Your task to perform on an android device: open app "Reddit" (install if not already installed), go to login, and select forgot password Image 0: 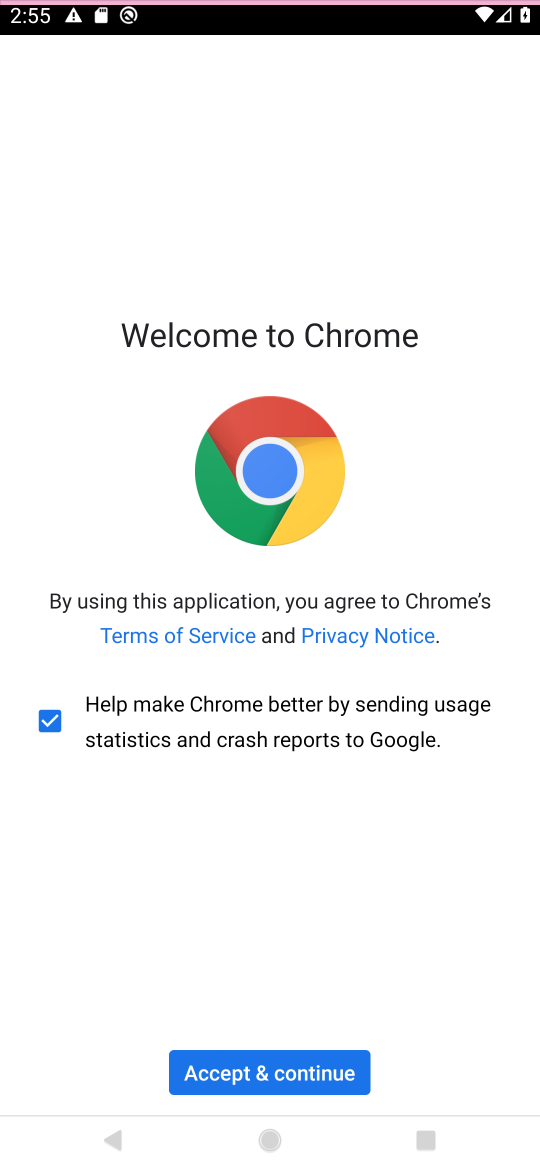
Step 0: press home button
Your task to perform on an android device: open app "Reddit" (install if not already installed), go to login, and select forgot password Image 1: 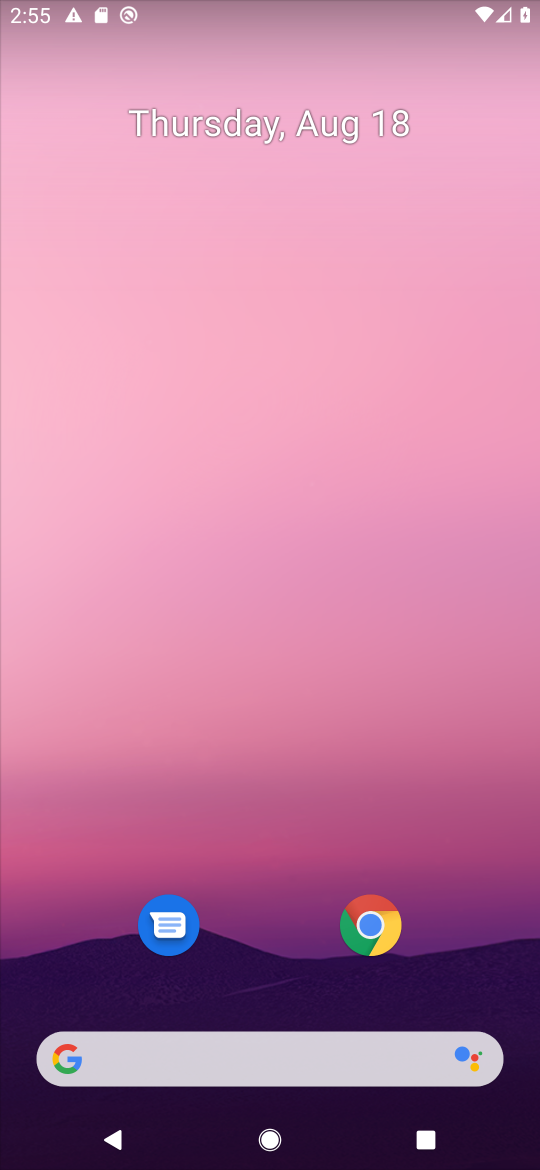
Step 1: press home button
Your task to perform on an android device: open app "Reddit" (install if not already installed), go to login, and select forgot password Image 2: 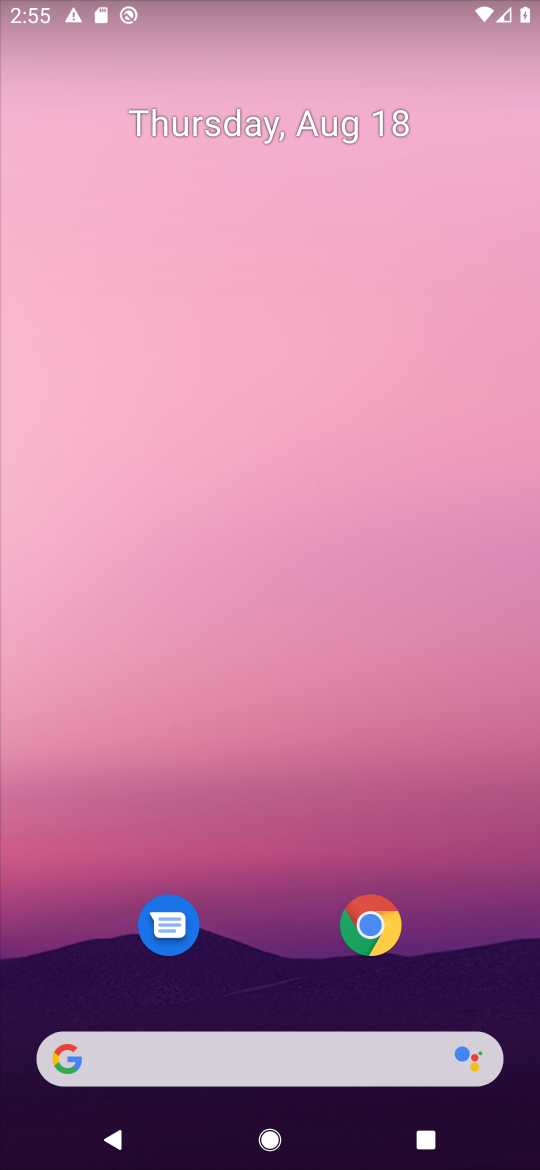
Step 2: click (242, 994)
Your task to perform on an android device: open app "Reddit" (install if not already installed), go to login, and select forgot password Image 3: 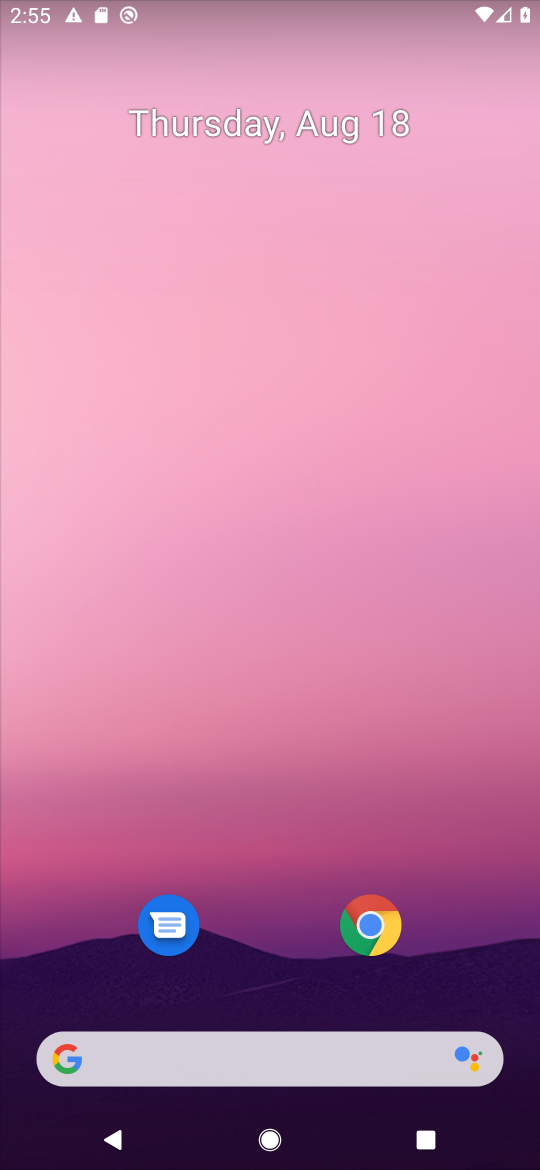
Step 3: drag from (240, 980) to (240, 337)
Your task to perform on an android device: open app "Reddit" (install if not already installed), go to login, and select forgot password Image 4: 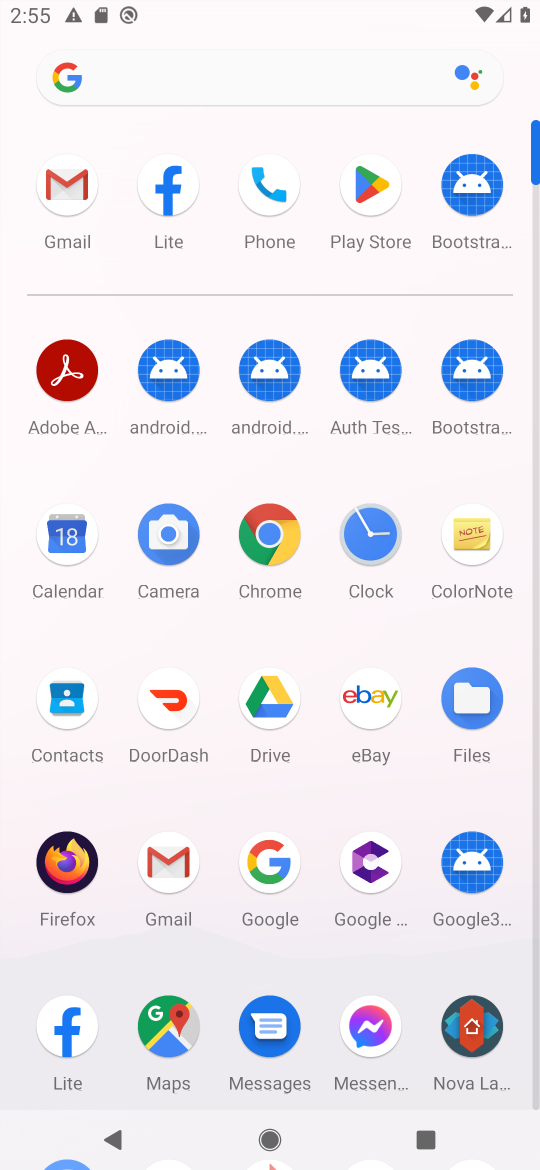
Step 4: click (362, 191)
Your task to perform on an android device: open app "Reddit" (install if not already installed), go to login, and select forgot password Image 5: 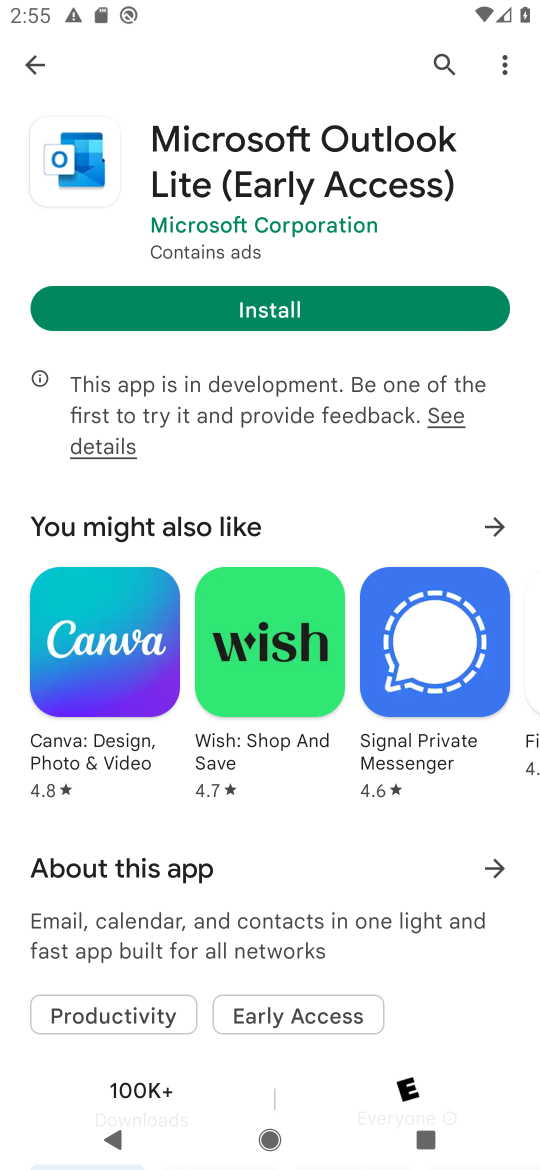
Step 5: click (25, 67)
Your task to perform on an android device: open app "Reddit" (install if not already installed), go to login, and select forgot password Image 6: 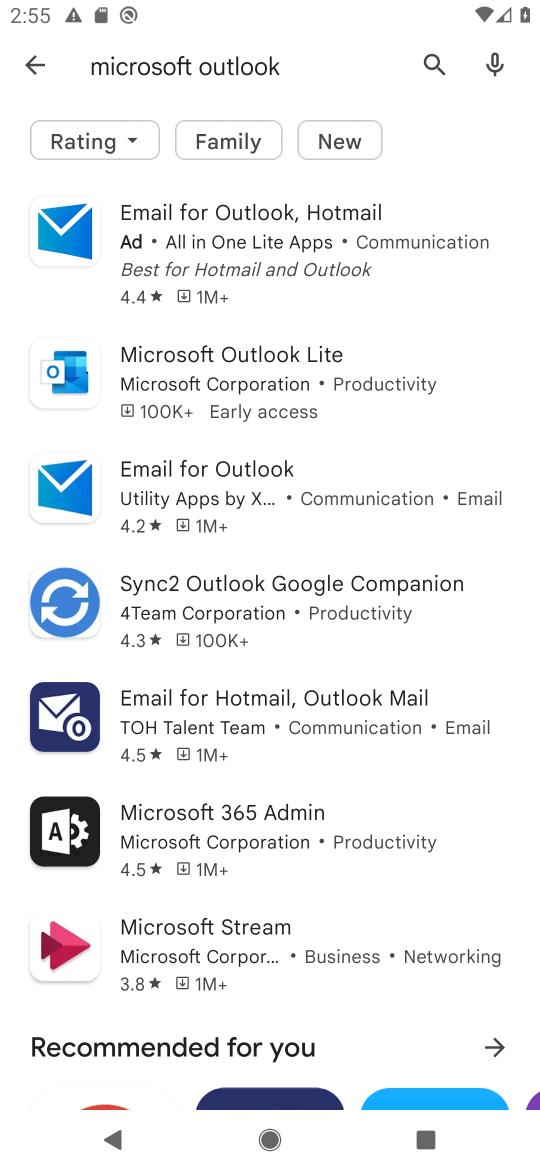
Step 6: click (37, 66)
Your task to perform on an android device: open app "Reddit" (install if not already installed), go to login, and select forgot password Image 7: 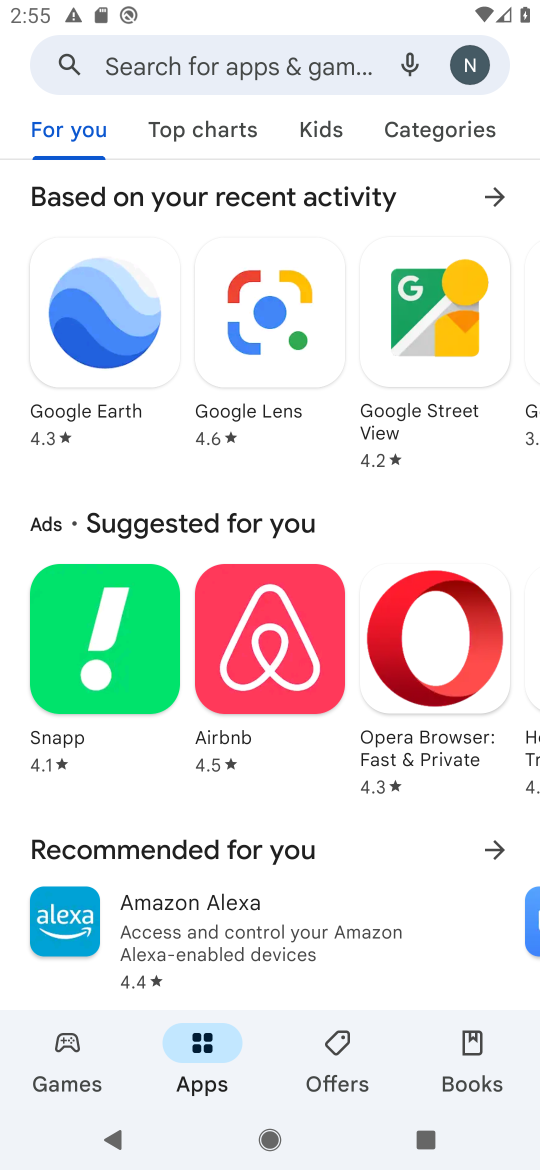
Step 7: click (249, 60)
Your task to perform on an android device: open app "Reddit" (install if not already installed), go to login, and select forgot password Image 8: 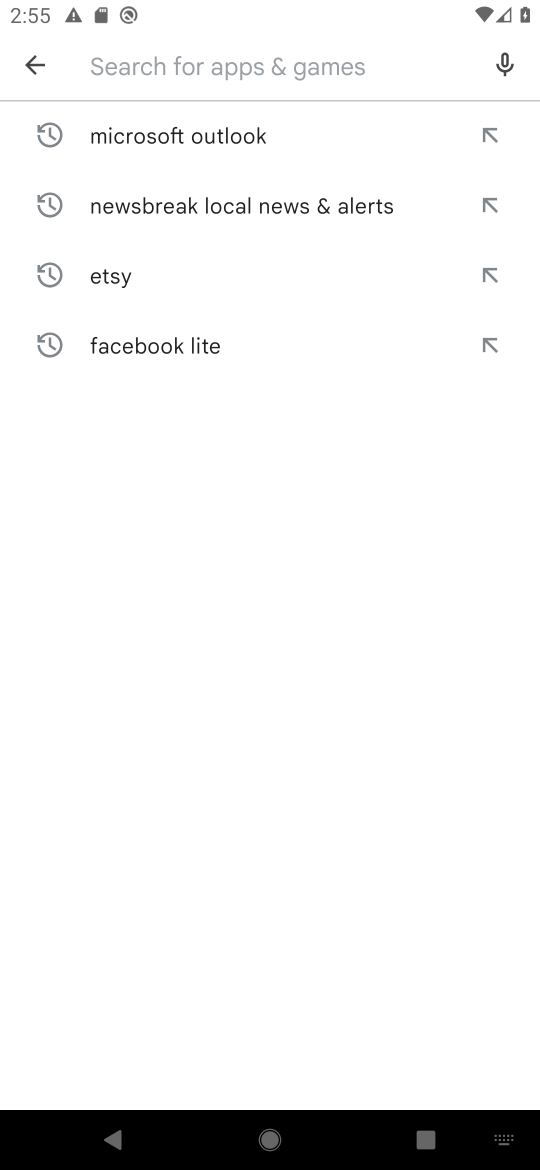
Step 8: type "Reddit"
Your task to perform on an android device: open app "Reddit" (install if not already installed), go to login, and select forgot password Image 9: 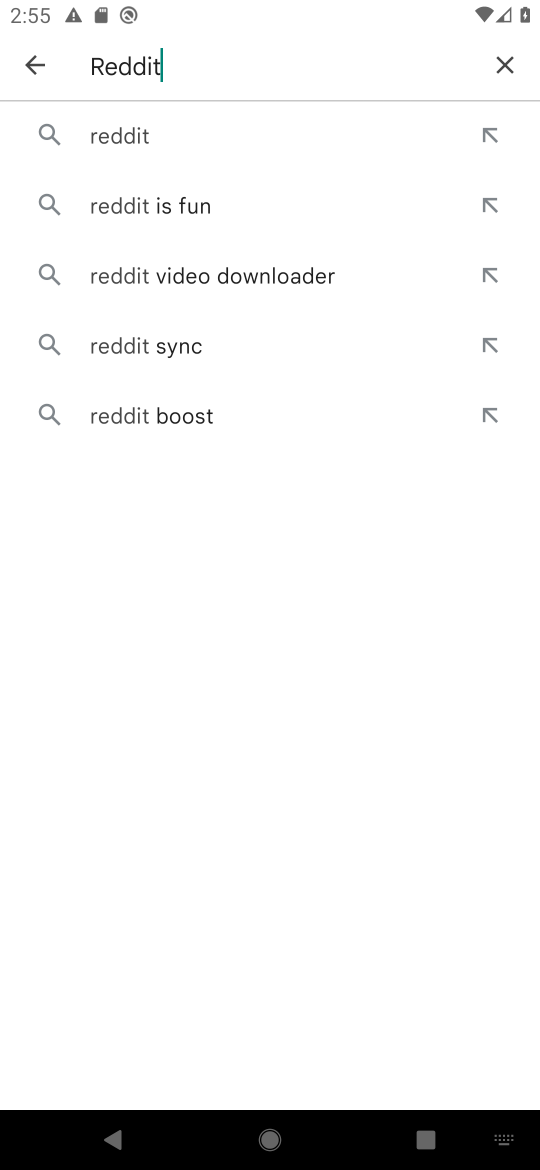
Step 9: click (110, 135)
Your task to perform on an android device: open app "Reddit" (install if not already installed), go to login, and select forgot password Image 10: 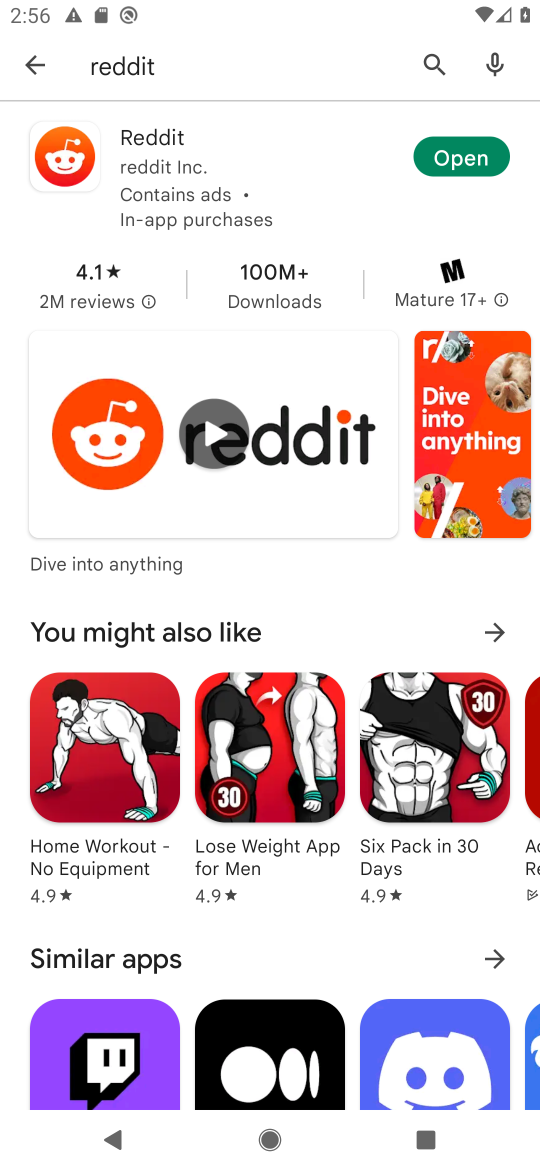
Step 10: click (439, 163)
Your task to perform on an android device: open app "Reddit" (install if not already installed), go to login, and select forgot password Image 11: 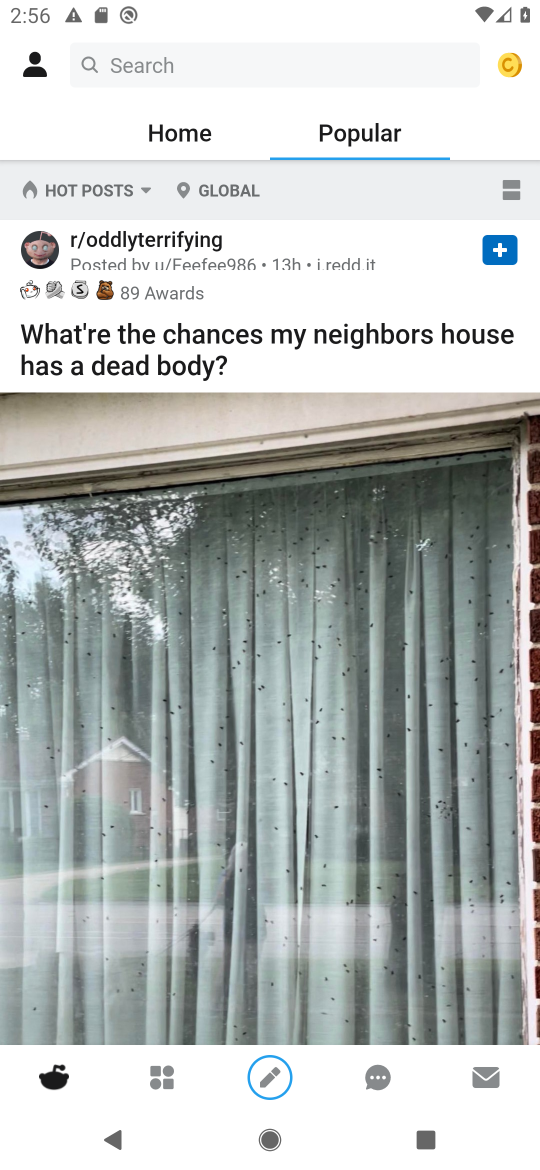
Step 11: task complete